Your task to perform on an android device: add a contact in the contacts app Image 0: 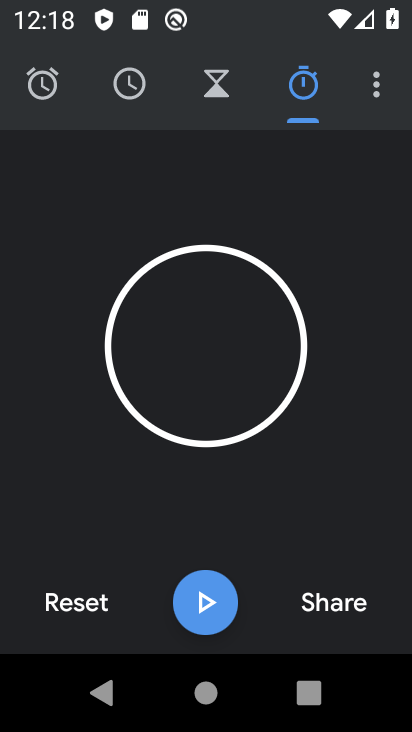
Step 0: press back button
Your task to perform on an android device: add a contact in the contacts app Image 1: 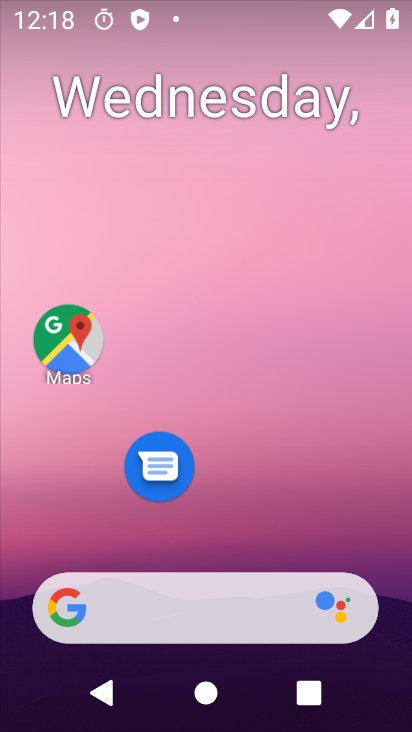
Step 1: drag from (236, 524) to (163, 7)
Your task to perform on an android device: add a contact in the contacts app Image 2: 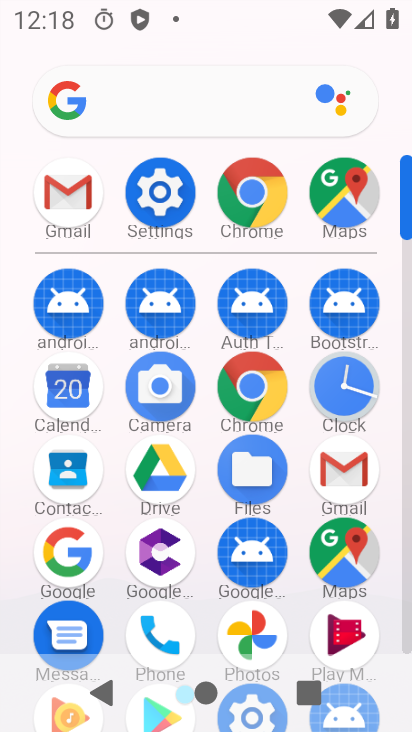
Step 2: click (408, 503)
Your task to perform on an android device: add a contact in the contacts app Image 3: 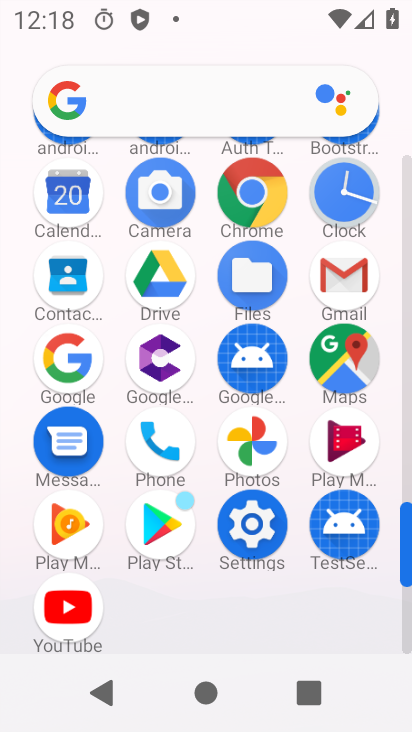
Step 3: click (69, 281)
Your task to perform on an android device: add a contact in the contacts app Image 4: 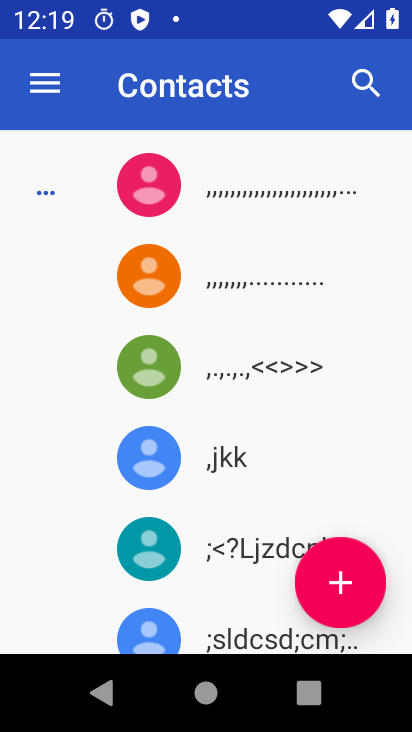
Step 4: click (339, 607)
Your task to perform on an android device: add a contact in the contacts app Image 5: 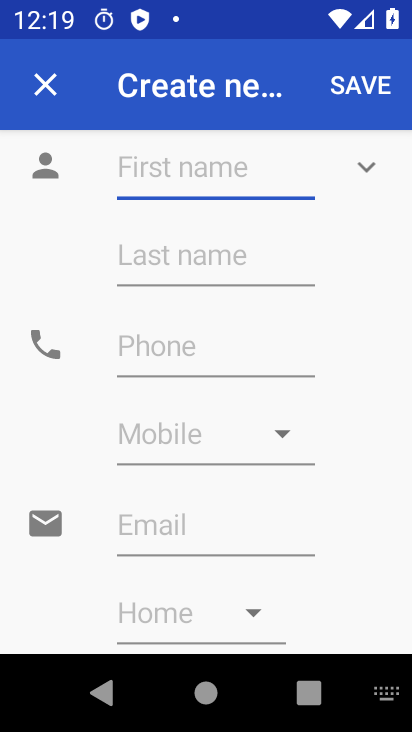
Step 5: type "valadimir"
Your task to perform on an android device: add a contact in the contacts app Image 6: 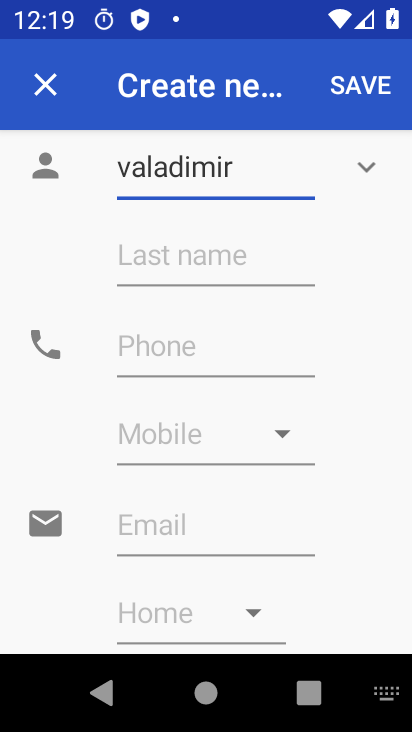
Step 6: click (156, 252)
Your task to perform on an android device: add a contact in the contacts app Image 7: 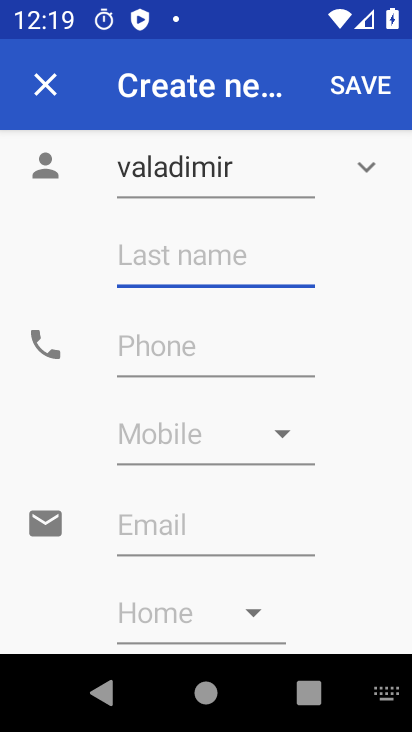
Step 7: type "putin"
Your task to perform on an android device: add a contact in the contacts app Image 8: 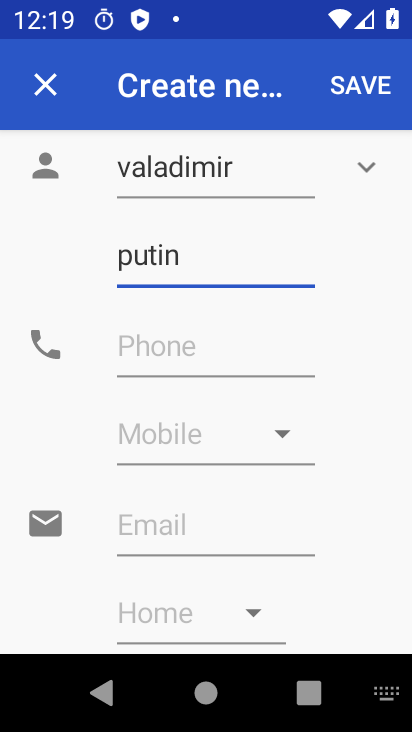
Step 8: click (227, 361)
Your task to perform on an android device: add a contact in the contacts app Image 9: 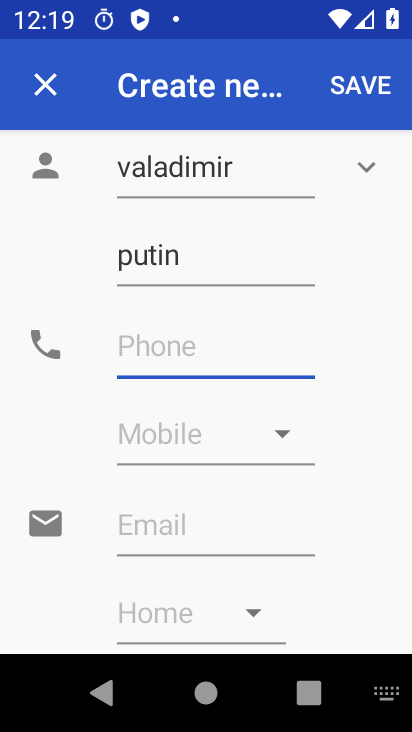
Step 9: type "65646479"
Your task to perform on an android device: add a contact in the contacts app Image 10: 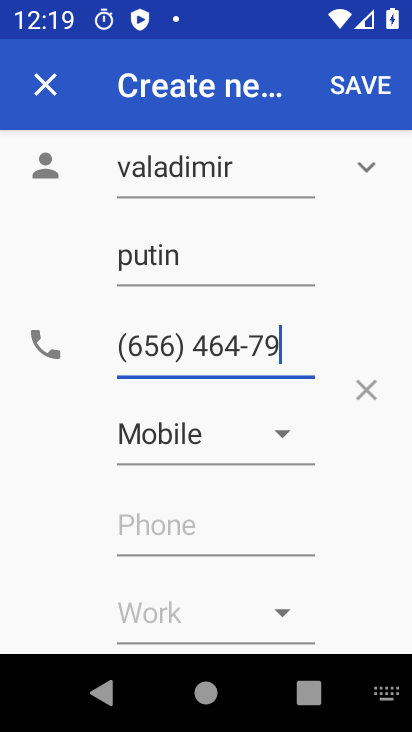
Step 10: task complete